Your task to perform on an android device: Go to settings Image 0: 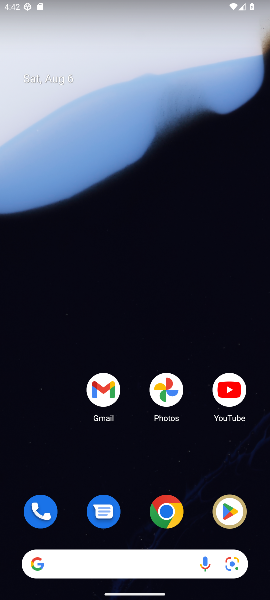
Step 0: drag from (136, 461) to (151, 1)
Your task to perform on an android device: Go to settings Image 1: 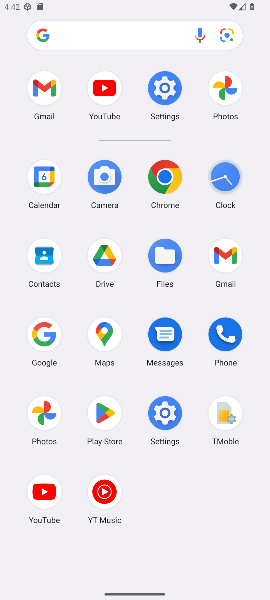
Step 1: click (156, 438)
Your task to perform on an android device: Go to settings Image 2: 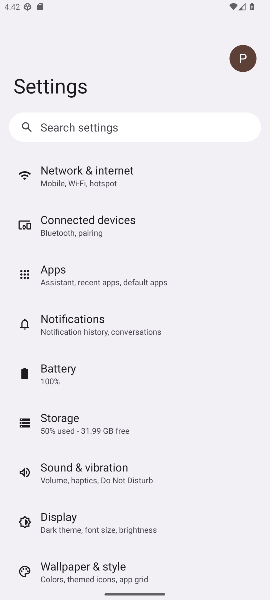
Step 2: task complete